Your task to perform on an android device: Show me the alarms in the clock app Image 0: 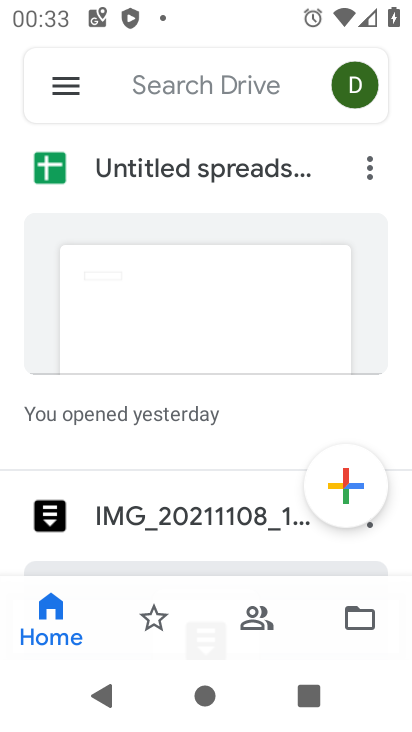
Step 0: press home button
Your task to perform on an android device: Show me the alarms in the clock app Image 1: 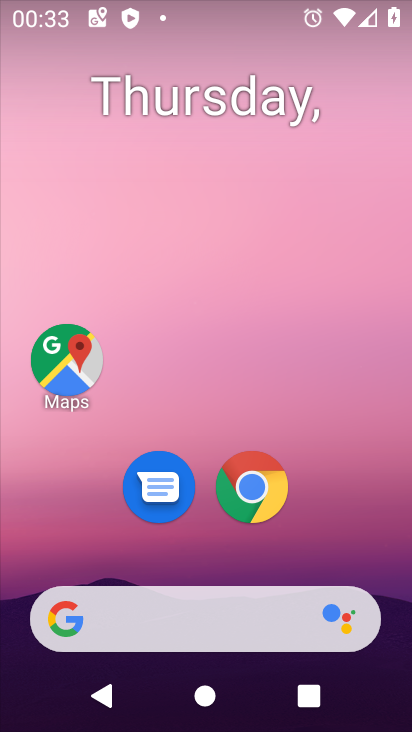
Step 1: drag from (363, 575) to (290, 30)
Your task to perform on an android device: Show me the alarms in the clock app Image 2: 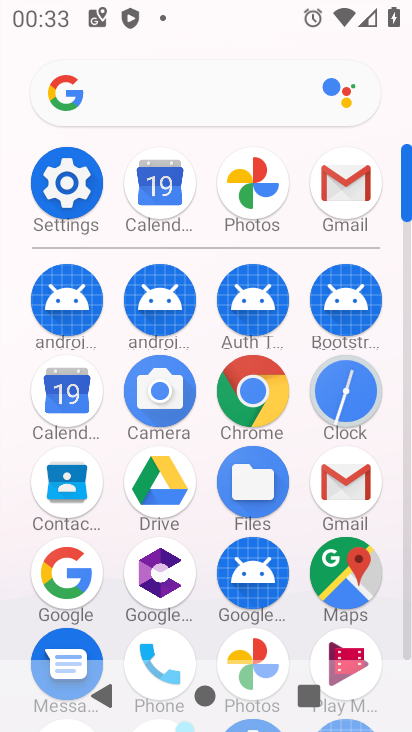
Step 2: click (341, 396)
Your task to perform on an android device: Show me the alarms in the clock app Image 3: 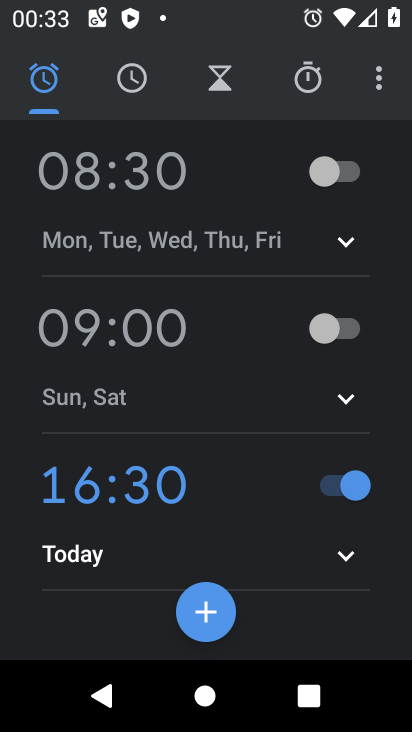
Step 3: task complete